Your task to perform on an android device: When is my next meeting? Image 0: 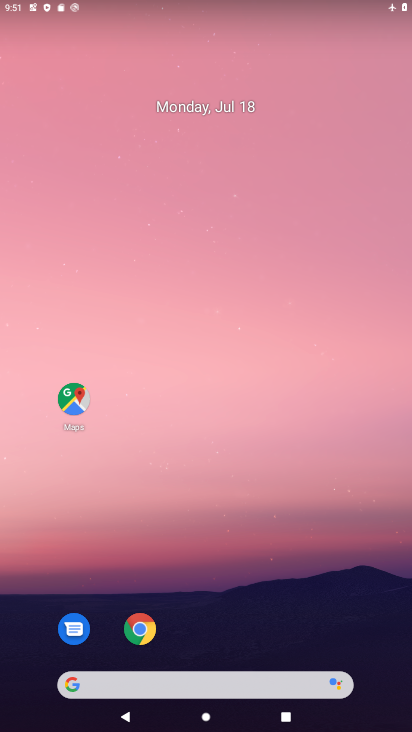
Step 0: drag from (247, 623) to (235, 108)
Your task to perform on an android device: When is my next meeting? Image 1: 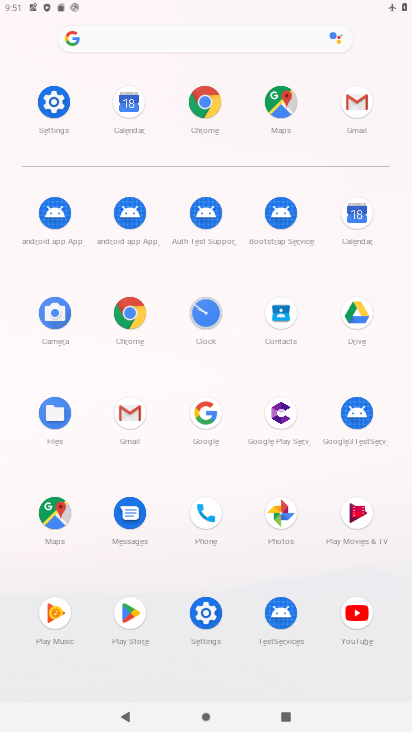
Step 1: click (354, 214)
Your task to perform on an android device: When is my next meeting? Image 2: 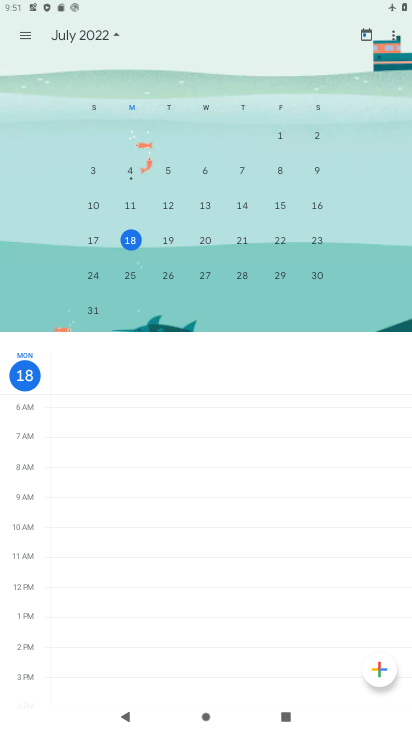
Step 2: click (25, 37)
Your task to perform on an android device: When is my next meeting? Image 3: 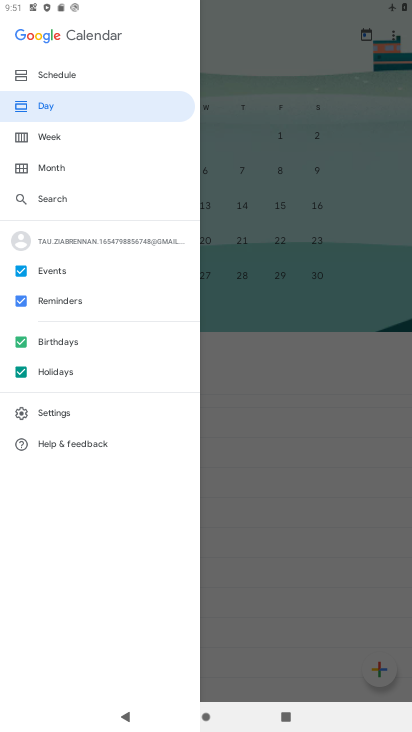
Step 3: click (49, 140)
Your task to perform on an android device: When is my next meeting? Image 4: 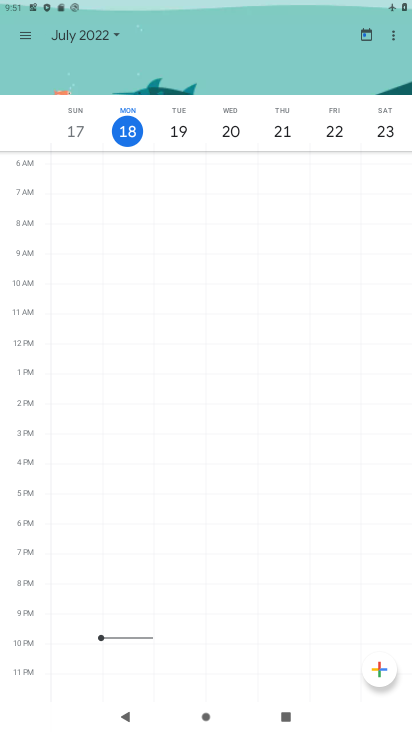
Step 4: task complete